Your task to perform on an android device: all mails in gmail Image 0: 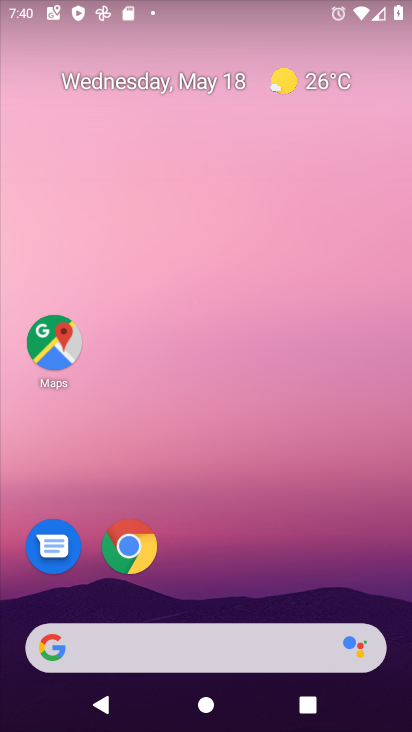
Step 0: drag from (389, 610) to (311, 29)
Your task to perform on an android device: all mails in gmail Image 1: 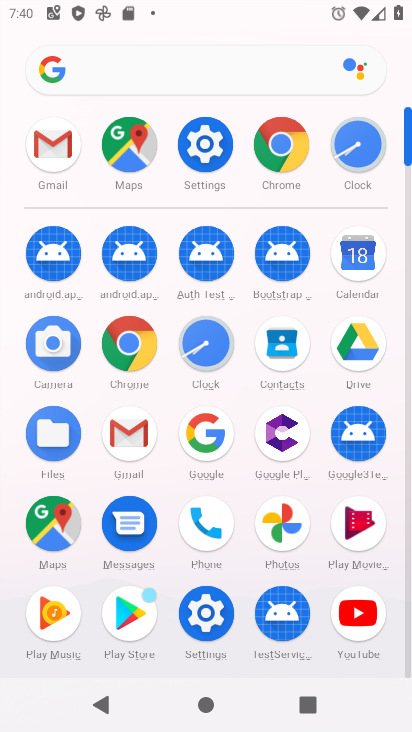
Step 1: click (118, 437)
Your task to perform on an android device: all mails in gmail Image 2: 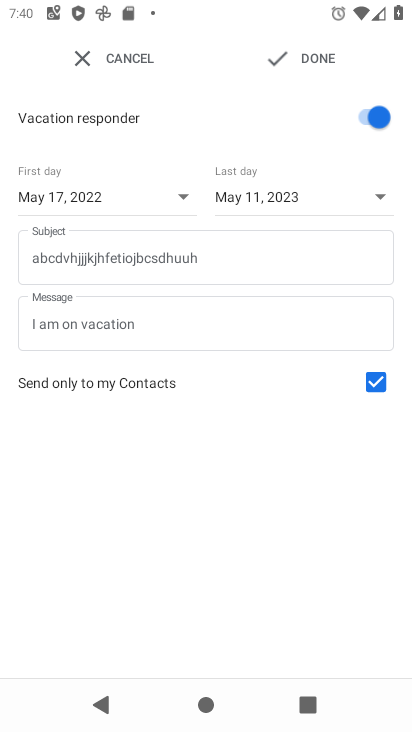
Step 2: press back button
Your task to perform on an android device: all mails in gmail Image 3: 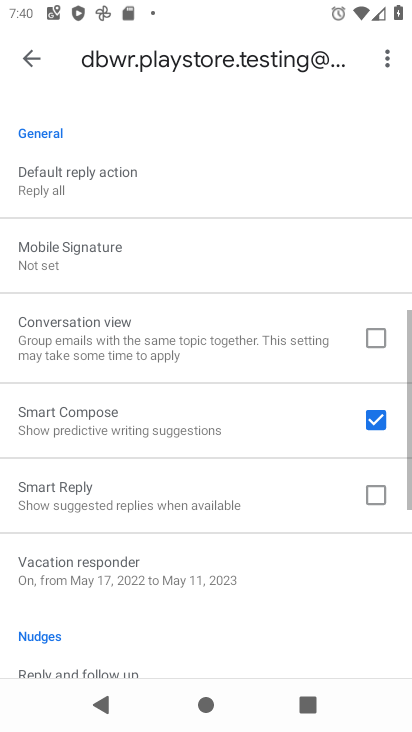
Step 3: press back button
Your task to perform on an android device: all mails in gmail Image 4: 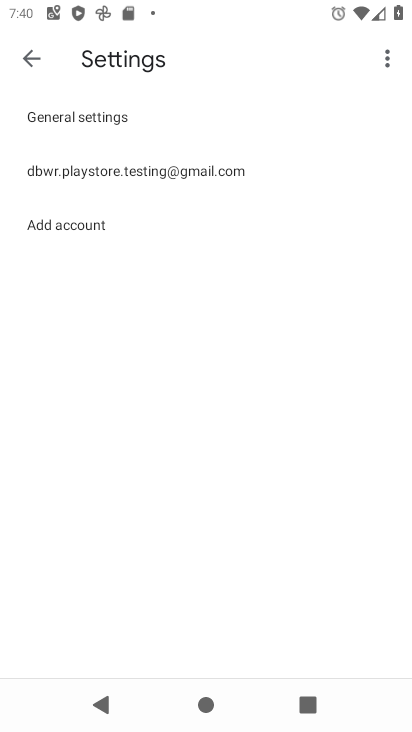
Step 4: press back button
Your task to perform on an android device: all mails in gmail Image 5: 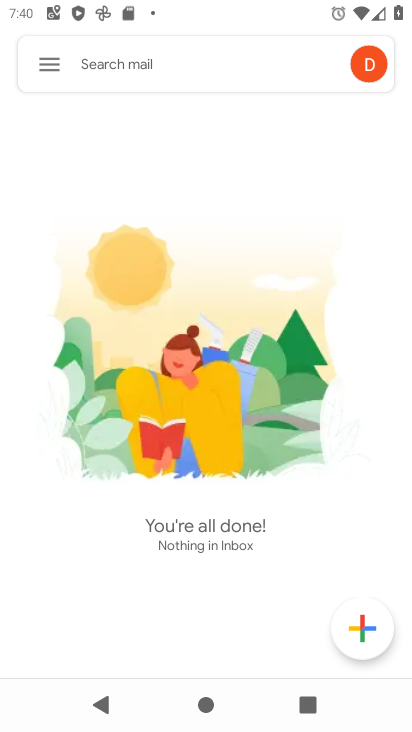
Step 5: click (39, 53)
Your task to perform on an android device: all mails in gmail Image 6: 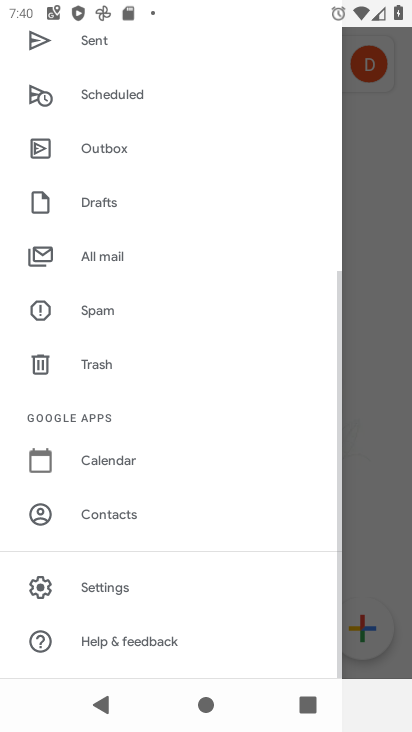
Step 6: click (111, 252)
Your task to perform on an android device: all mails in gmail Image 7: 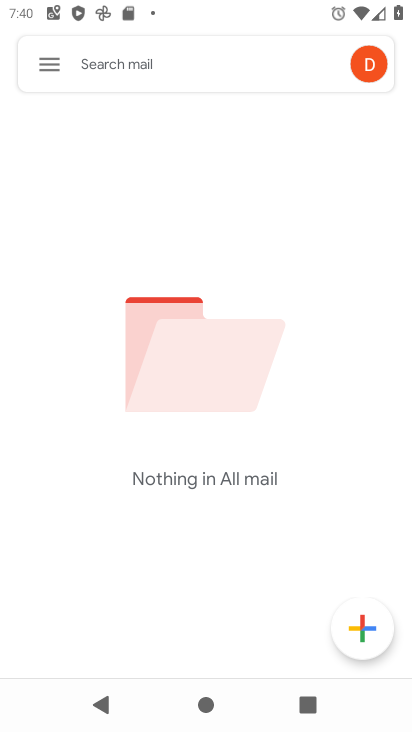
Step 7: task complete